Your task to perform on an android device: Open Google Chrome and click the shortcut for Amazon.com Image 0: 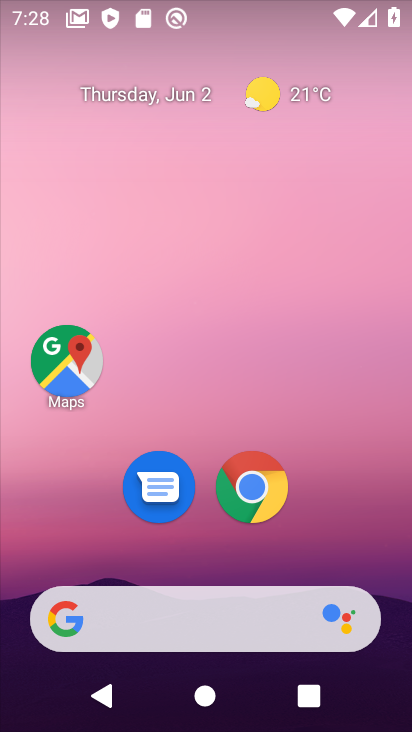
Step 0: click (232, 485)
Your task to perform on an android device: Open Google Chrome and click the shortcut for Amazon.com Image 1: 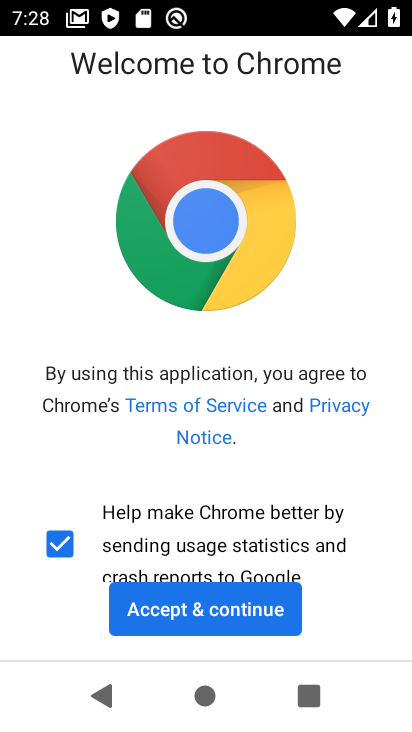
Step 1: click (181, 617)
Your task to perform on an android device: Open Google Chrome and click the shortcut for Amazon.com Image 2: 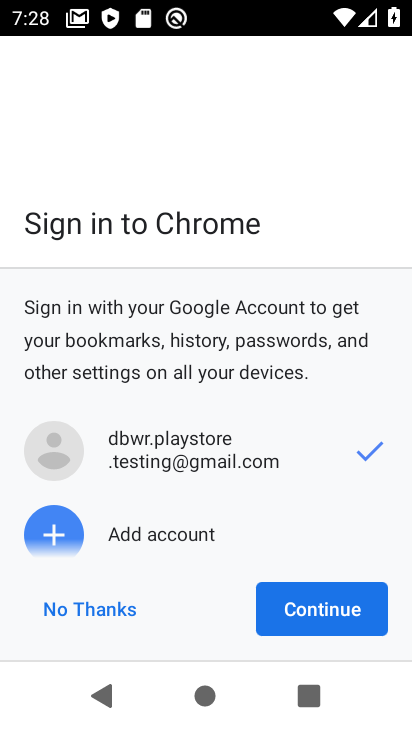
Step 2: click (302, 620)
Your task to perform on an android device: Open Google Chrome and click the shortcut for Amazon.com Image 3: 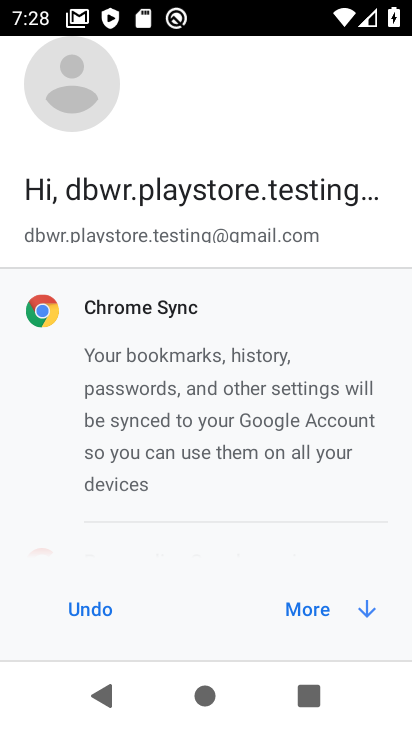
Step 3: click (312, 622)
Your task to perform on an android device: Open Google Chrome and click the shortcut for Amazon.com Image 4: 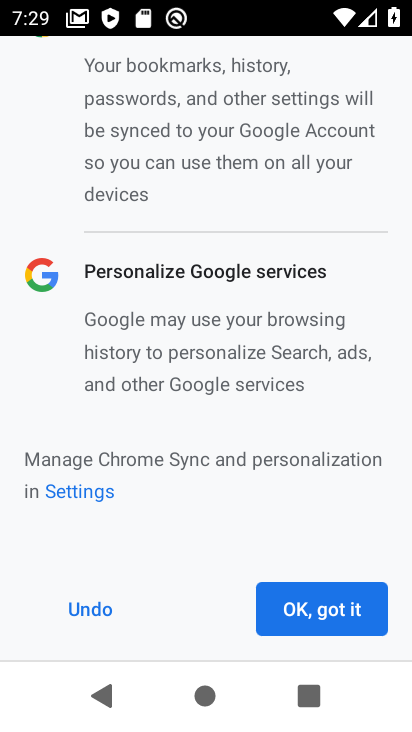
Step 4: click (333, 610)
Your task to perform on an android device: Open Google Chrome and click the shortcut for Amazon.com Image 5: 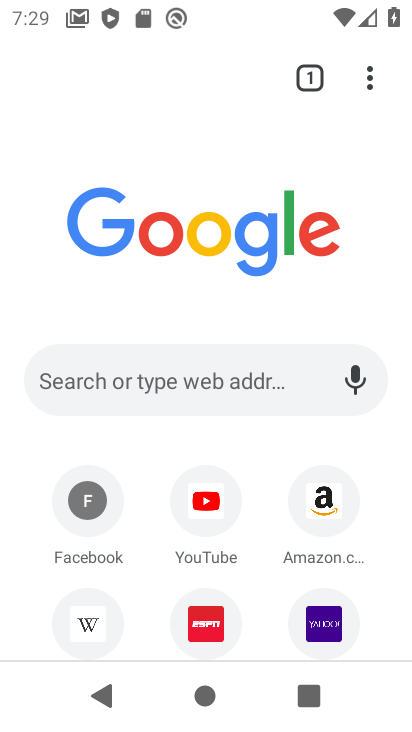
Step 5: click (167, 396)
Your task to perform on an android device: Open Google Chrome and click the shortcut for Amazon.com Image 6: 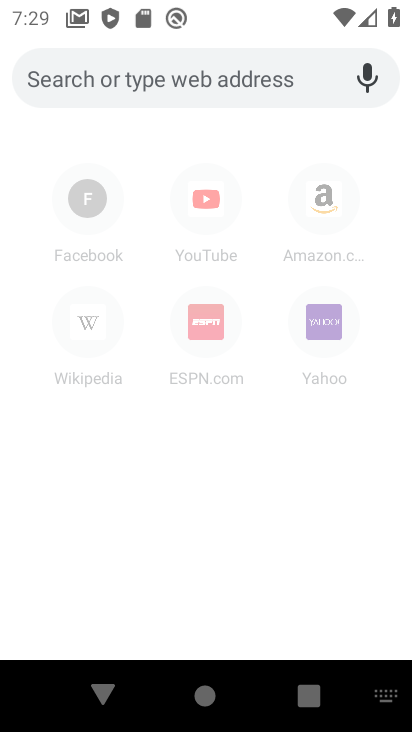
Step 6: type "amaz"
Your task to perform on an android device: Open Google Chrome and click the shortcut for Amazon.com Image 7: 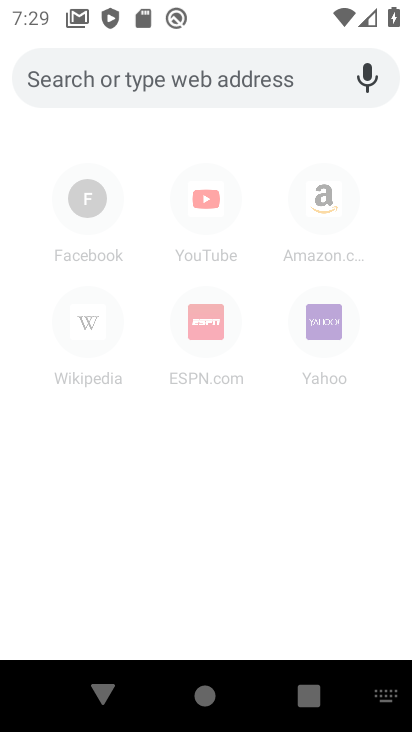
Step 7: click (335, 234)
Your task to perform on an android device: Open Google Chrome and click the shortcut for Amazon.com Image 8: 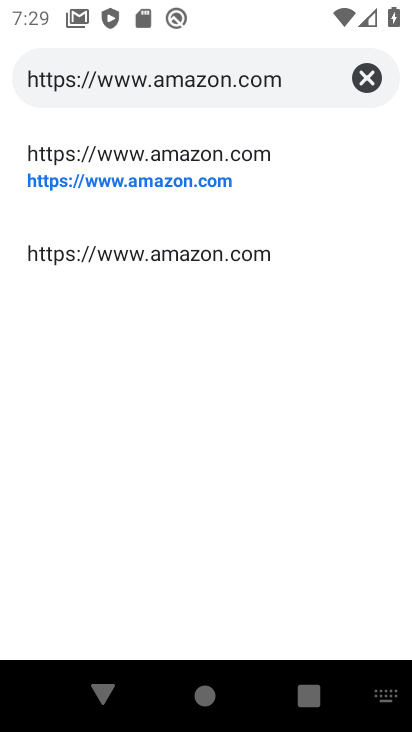
Step 8: click (188, 167)
Your task to perform on an android device: Open Google Chrome and click the shortcut for Amazon.com Image 9: 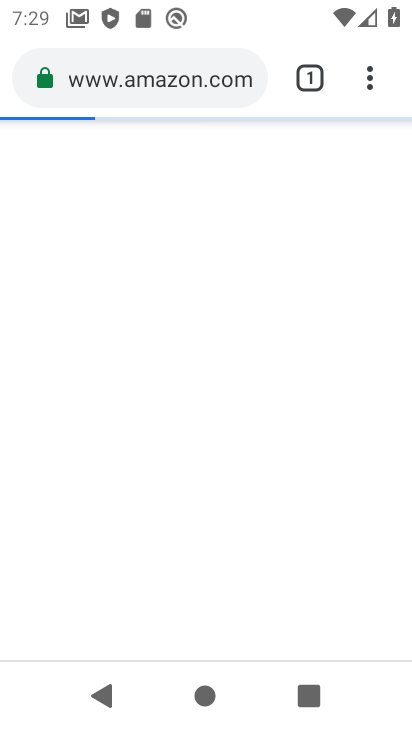
Step 9: task complete